Your task to perform on an android device: change alarm snooze length Image 0: 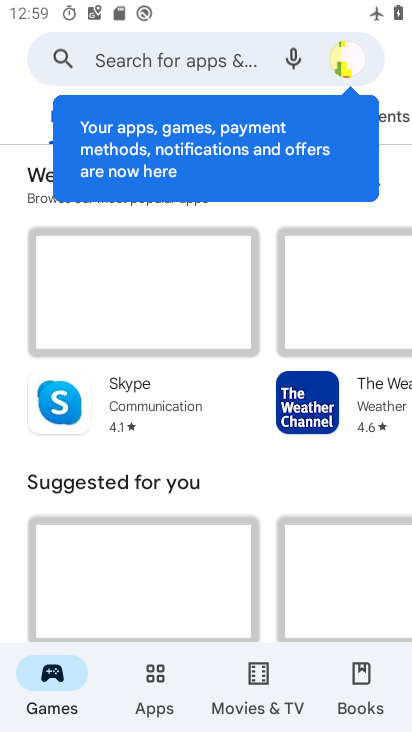
Step 0: press back button
Your task to perform on an android device: change alarm snooze length Image 1: 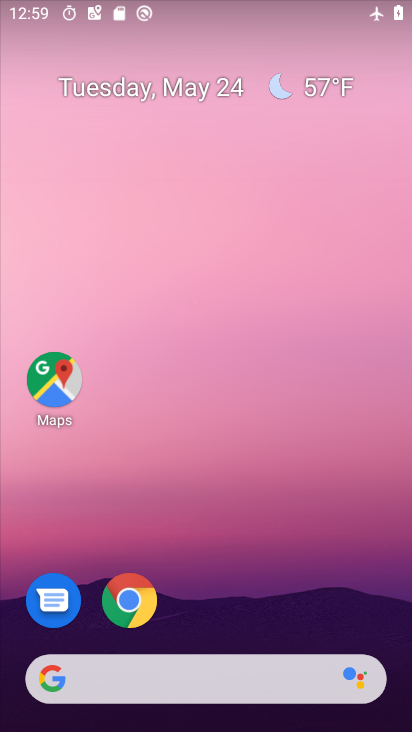
Step 1: drag from (242, 604) to (269, 120)
Your task to perform on an android device: change alarm snooze length Image 2: 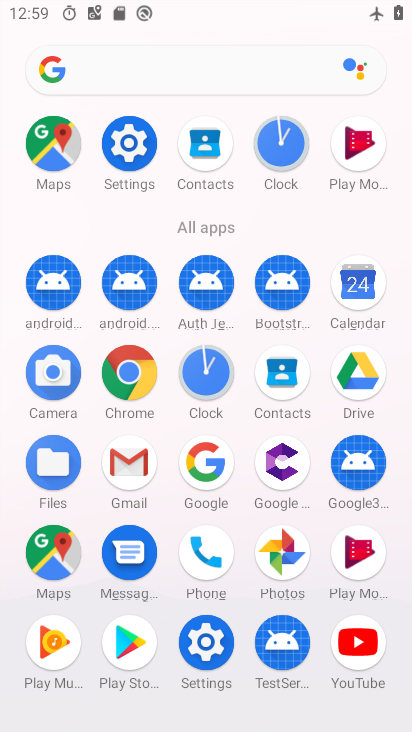
Step 2: click (203, 371)
Your task to perform on an android device: change alarm snooze length Image 3: 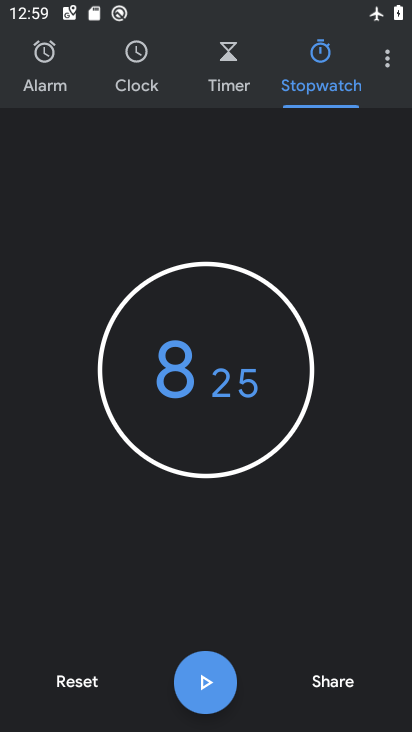
Step 3: click (389, 58)
Your task to perform on an android device: change alarm snooze length Image 4: 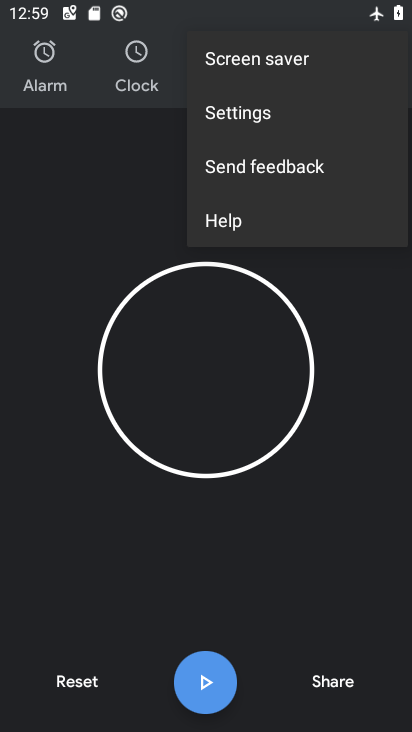
Step 4: click (301, 111)
Your task to perform on an android device: change alarm snooze length Image 5: 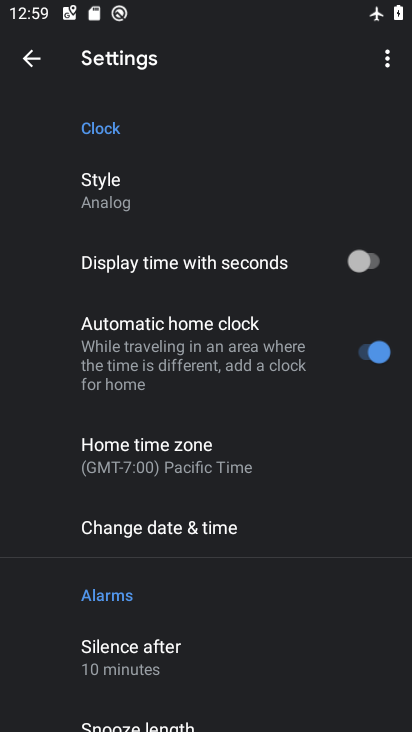
Step 5: drag from (186, 698) to (208, 286)
Your task to perform on an android device: change alarm snooze length Image 6: 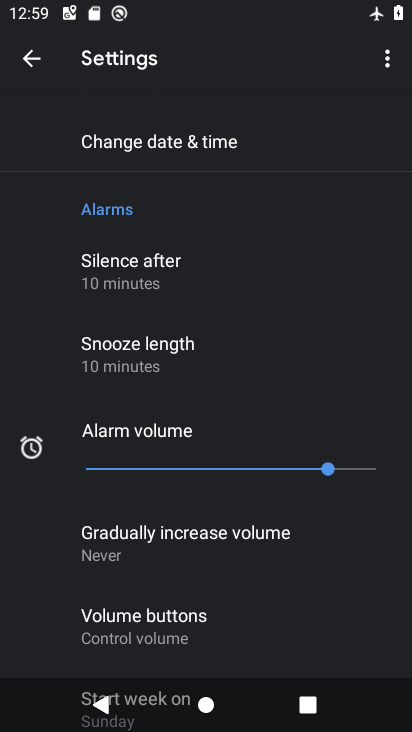
Step 6: click (144, 356)
Your task to perform on an android device: change alarm snooze length Image 7: 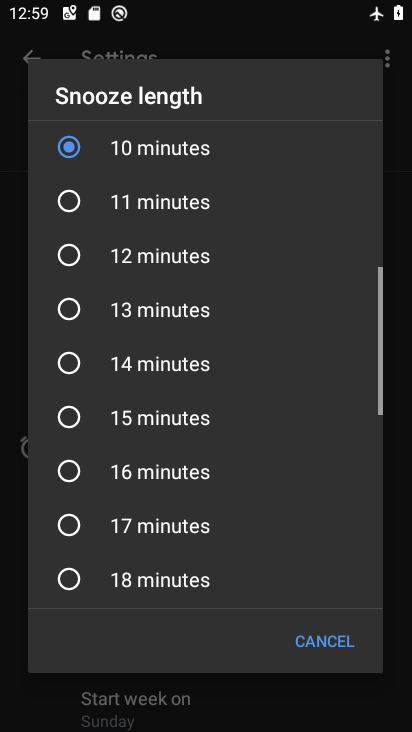
Step 7: click (72, 179)
Your task to perform on an android device: change alarm snooze length Image 8: 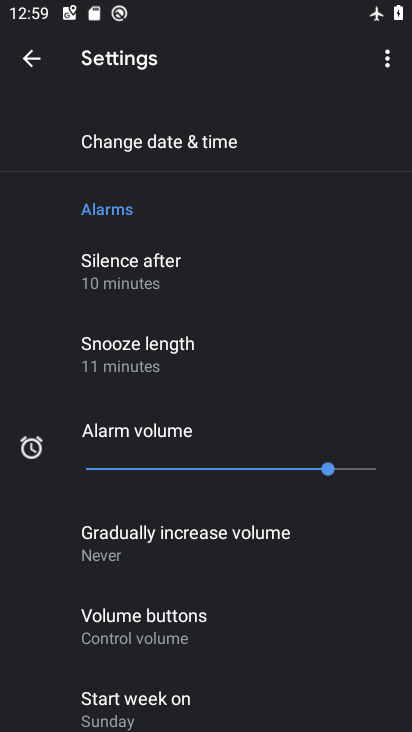
Step 8: task complete